Your task to perform on an android device: make emails show in primary in the gmail app Image 0: 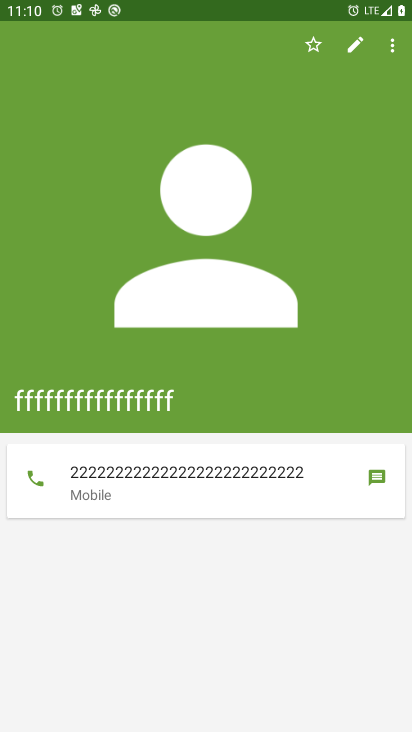
Step 0: press home button
Your task to perform on an android device: make emails show in primary in the gmail app Image 1: 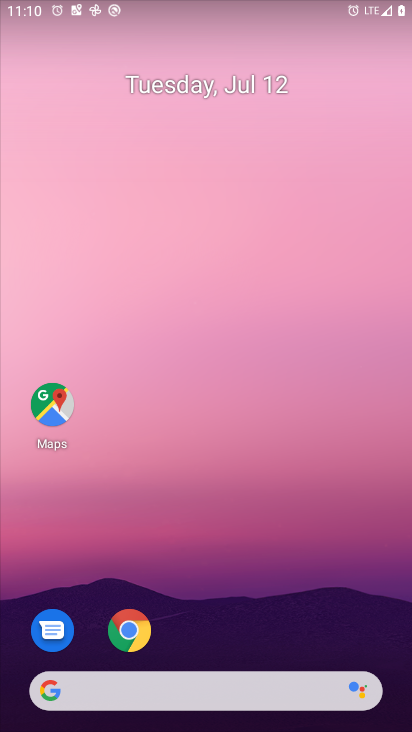
Step 1: drag from (269, 610) to (260, 145)
Your task to perform on an android device: make emails show in primary in the gmail app Image 2: 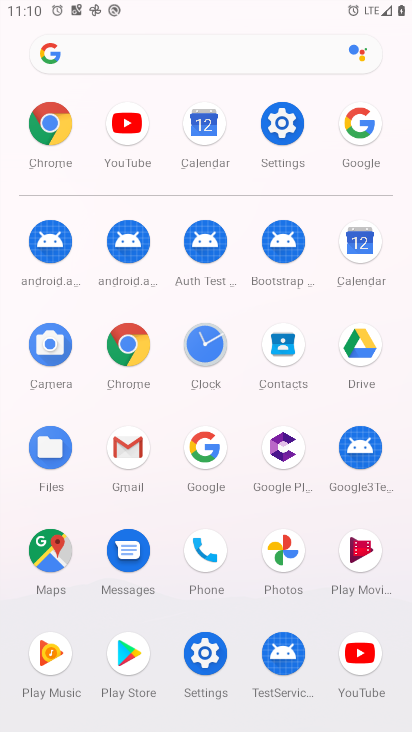
Step 2: click (123, 438)
Your task to perform on an android device: make emails show in primary in the gmail app Image 3: 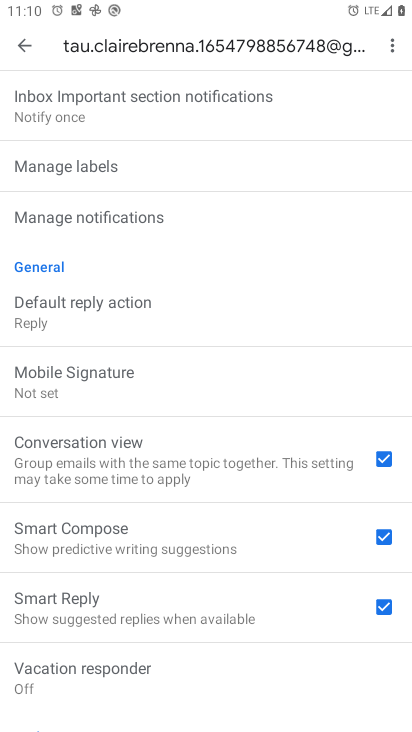
Step 3: click (28, 42)
Your task to perform on an android device: make emails show in primary in the gmail app Image 4: 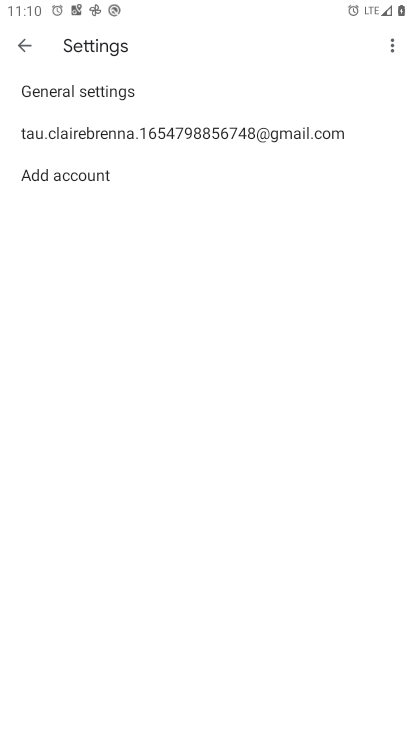
Step 4: click (28, 42)
Your task to perform on an android device: make emails show in primary in the gmail app Image 5: 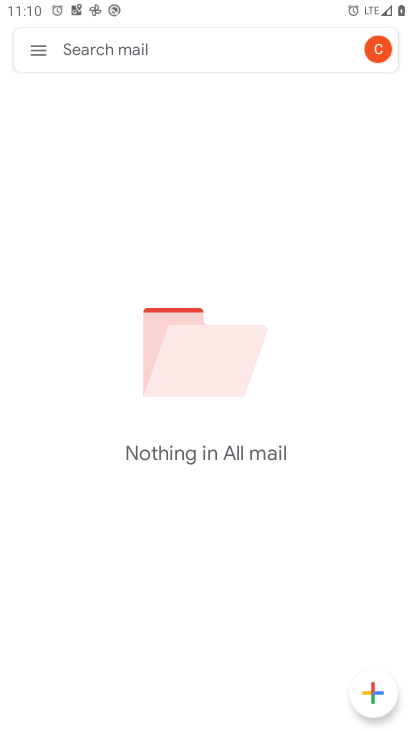
Step 5: click (28, 42)
Your task to perform on an android device: make emails show in primary in the gmail app Image 6: 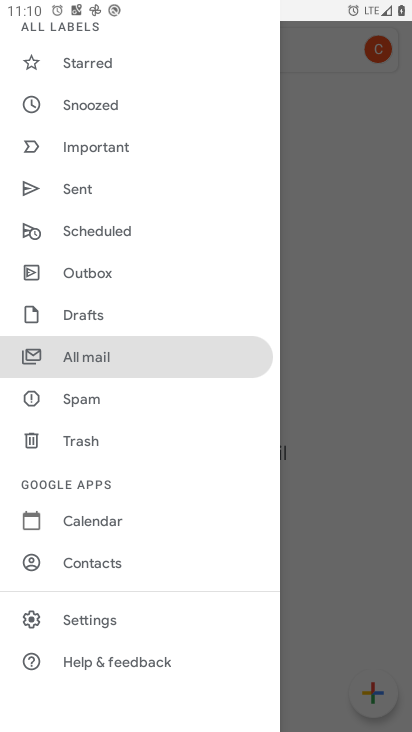
Step 6: drag from (148, 93) to (123, 538)
Your task to perform on an android device: make emails show in primary in the gmail app Image 7: 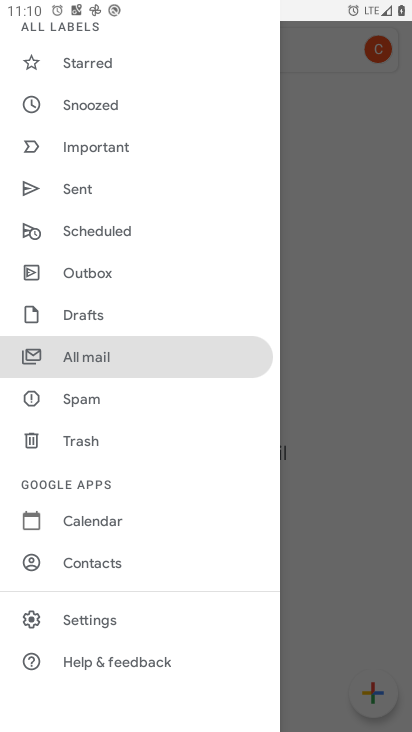
Step 7: drag from (166, 97) to (142, 473)
Your task to perform on an android device: make emails show in primary in the gmail app Image 8: 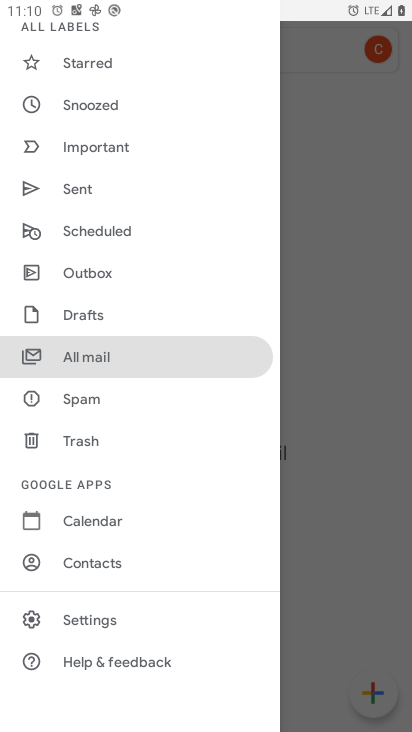
Step 8: drag from (181, 258) to (191, 704)
Your task to perform on an android device: make emails show in primary in the gmail app Image 9: 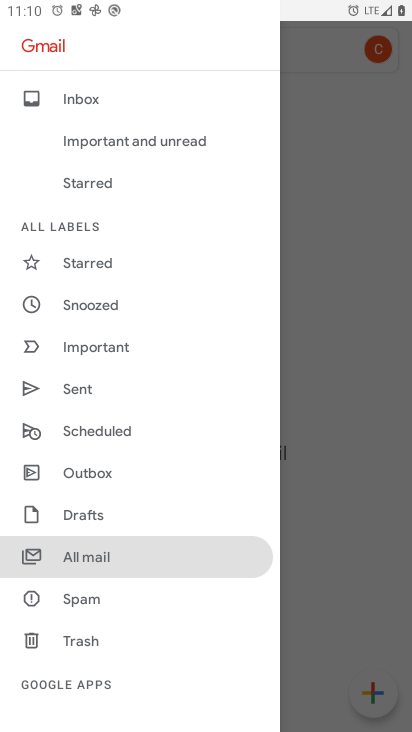
Step 9: drag from (209, 486) to (226, 271)
Your task to perform on an android device: make emails show in primary in the gmail app Image 10: 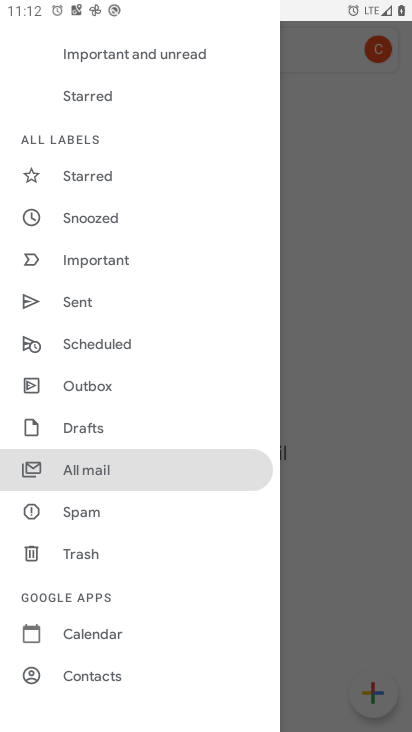
Step 10: drag from (183, 593) to (231, 272)
Your task to perform on an android device: make emails show in primary in the gmail app Image 11: 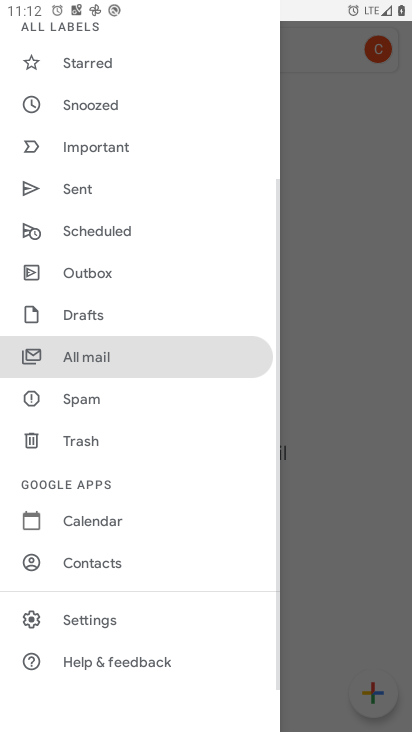
Step 11: click (109, 621)
Your task to perform on an android device: make emails show in primary in the gmail app Image 12: 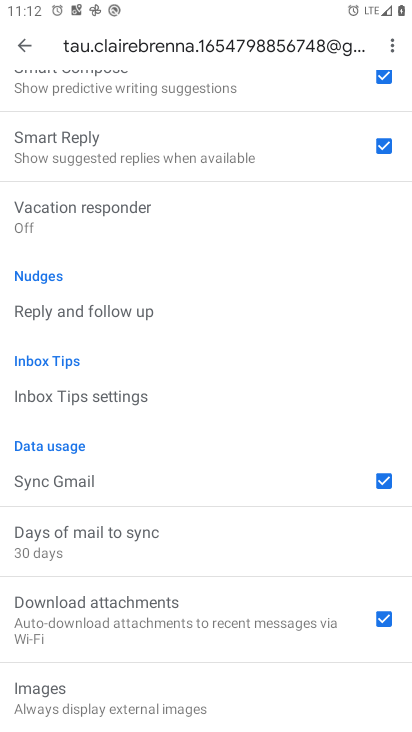
Step 12: drag from (210, 209) to (239, 729)
Your task to perform on an android device: make emails show in primary in the gmail app Image 13: 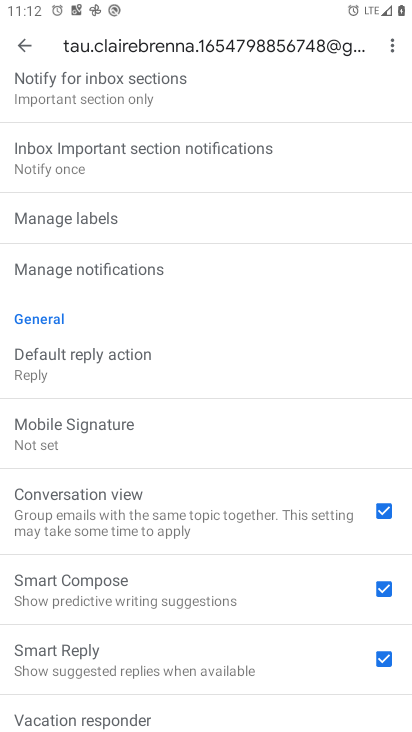
Step 13: drag from (235, 213) to (233, 514)
Your task to perform on an android device: make emails show in primary in the gmail app Image 14: 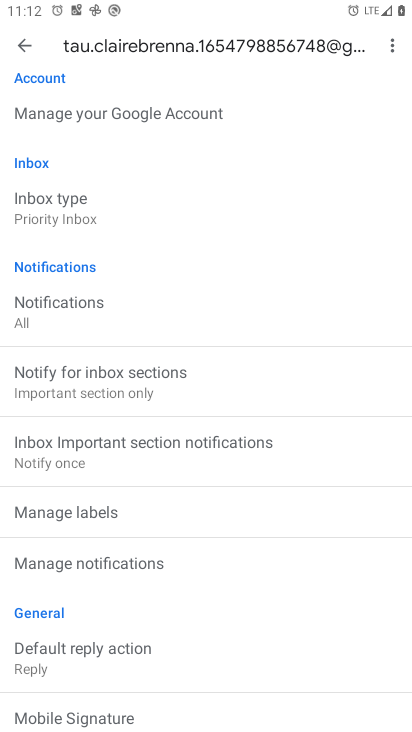
Step 14: click (67, 219)
Your task to perform on an android device: make emails show in primary in the gmail app Image 15: 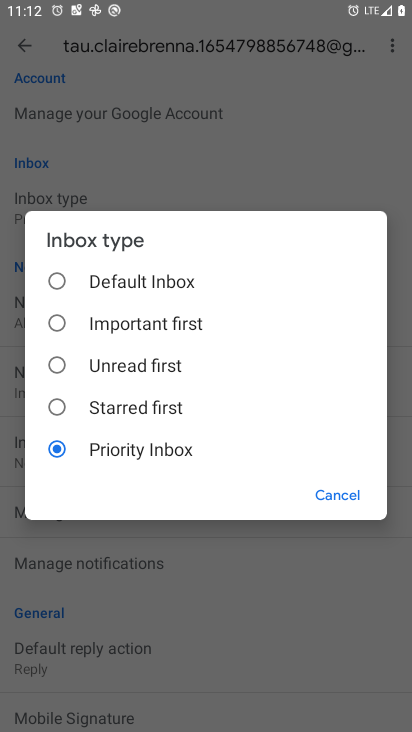
Step 15: click (123, 281)
Your task to perform on an android device: make emails show in primary in the gmail app Image 16: 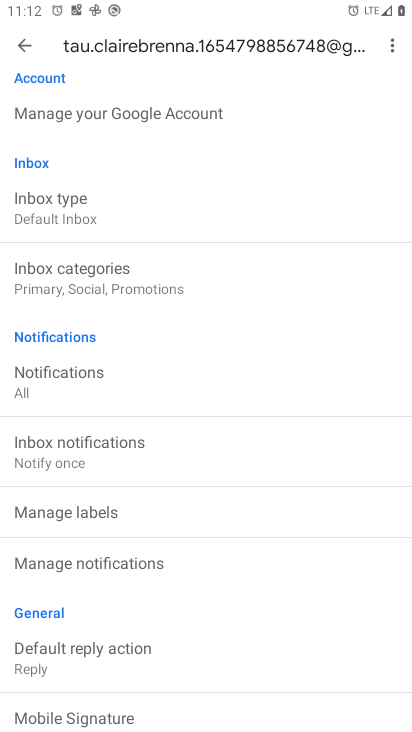
Step 16: click (123, 281)
Your task to perform on an android device: make emails show in primary in the gmail app Image 17: 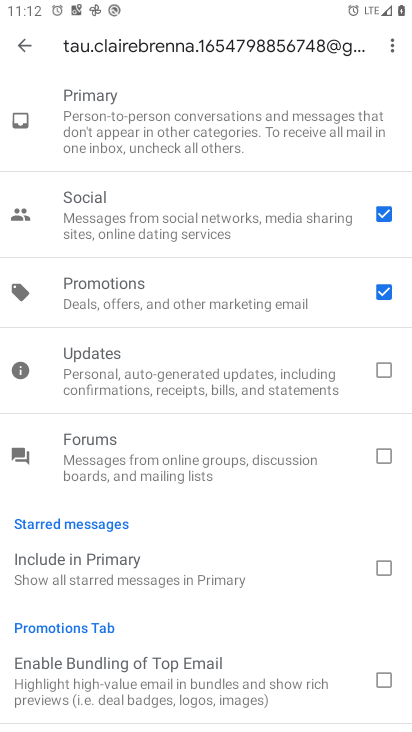
Step 17: click (375, 211)
Your task to perform on an android device: make emails show in primary in the gmail app Image 18: 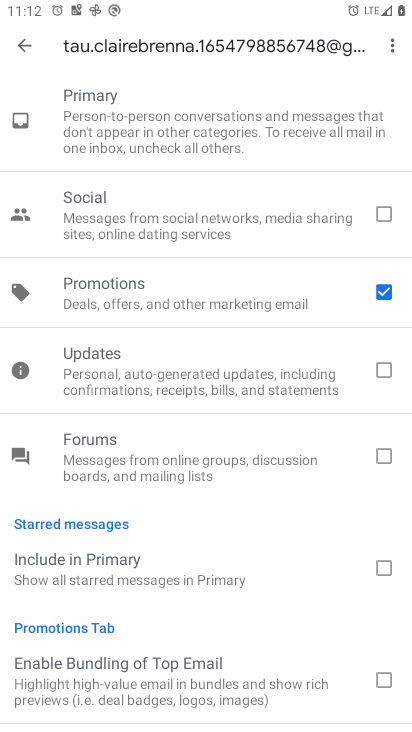
Step 18: click (385, 280)
Your task to perform on an android device: make emails show in primary in the gmail app Image 19: 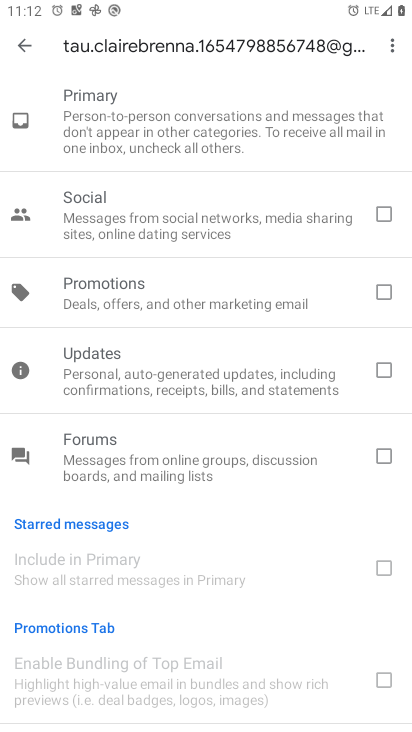
Step 19: click (377, 40)
Your task to perform on an android device: make emails show in primary in the gmail app Image 20: 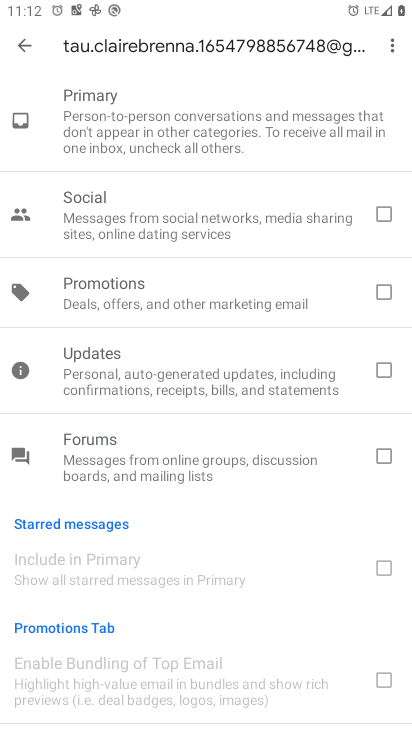
Step 20: click (398, 45)
Your task to perform on an android device: make emails show in primary in the gmail app Image 21: 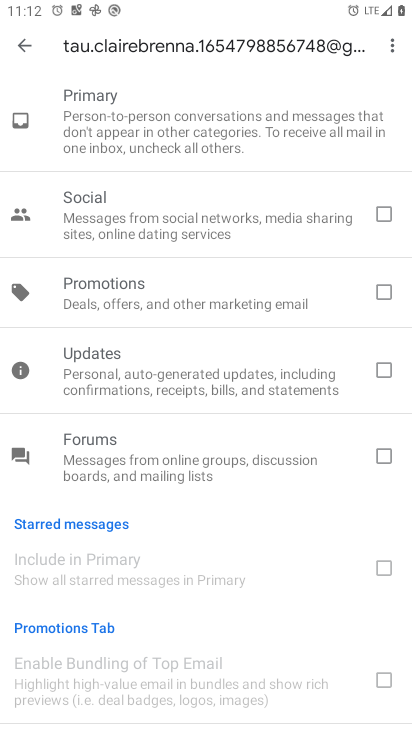
Step 21: task complete